Your task to perform on an android device: Go to battery settings Image 0: 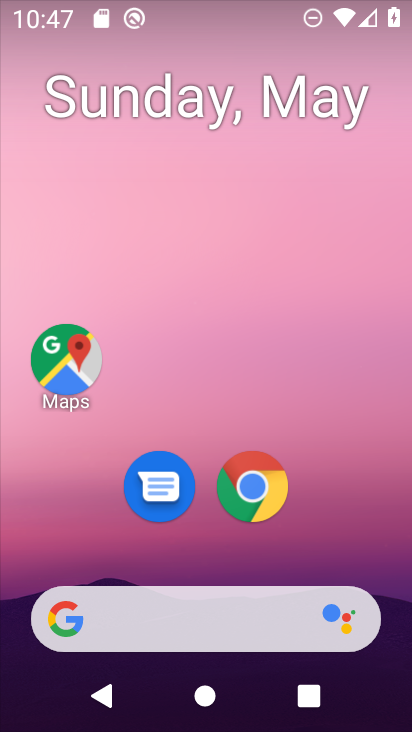
Step 0: drag from (388, 564) to (246, 0)
Your task to perform on an android device: Go to battery settings Image 1: 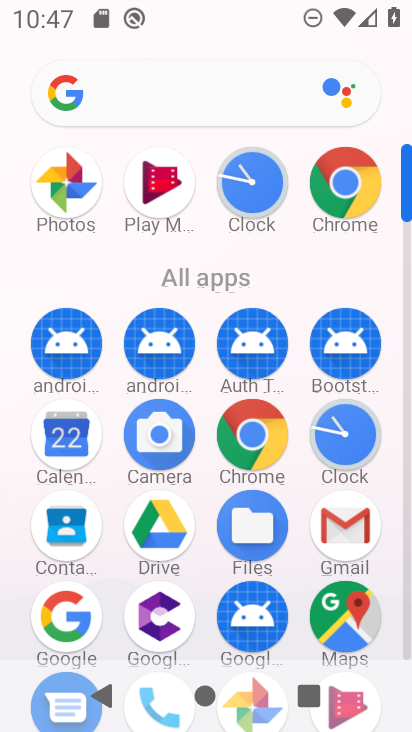
Step 1: click (409, 654)
Your task to perform on an android device: Go to battery settings Image 2: 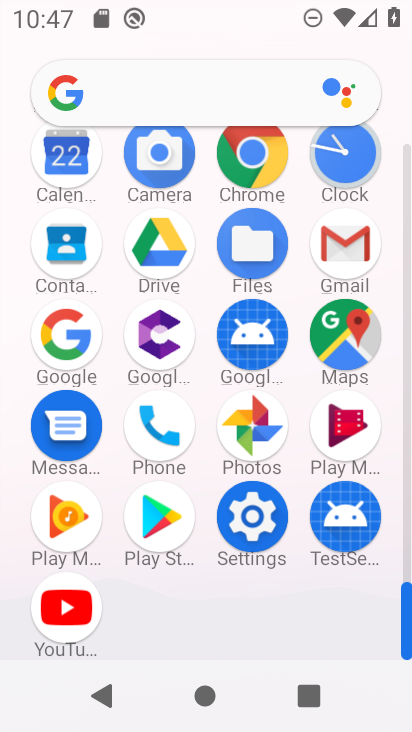
Step 2: click (268, 539)
Your task to perform on an android device: Go to battery settings Image 3: 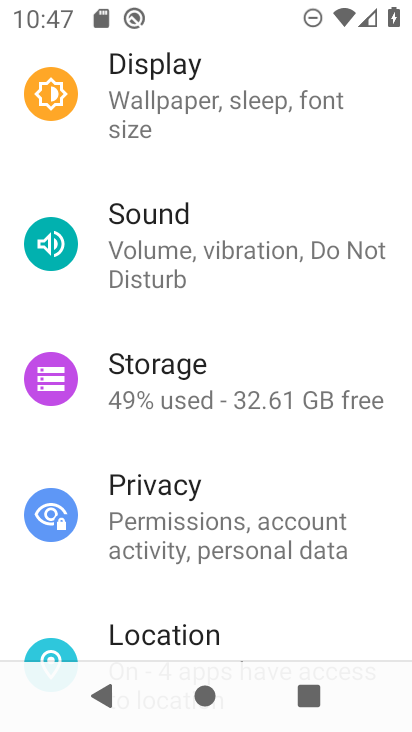
Step 3: drag from (257, 185) to (258, 614)
Your task to perform on an android device: Go to battery settings Image 4: 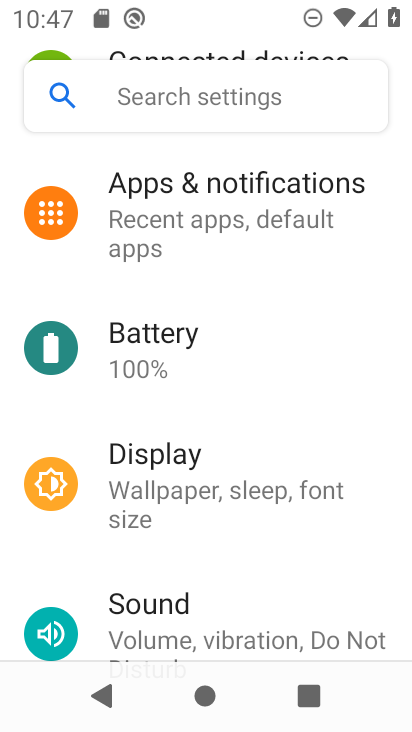
Step 4: click (218, 376)
Your task to perform on an android device: Go to battery settings Image 5: 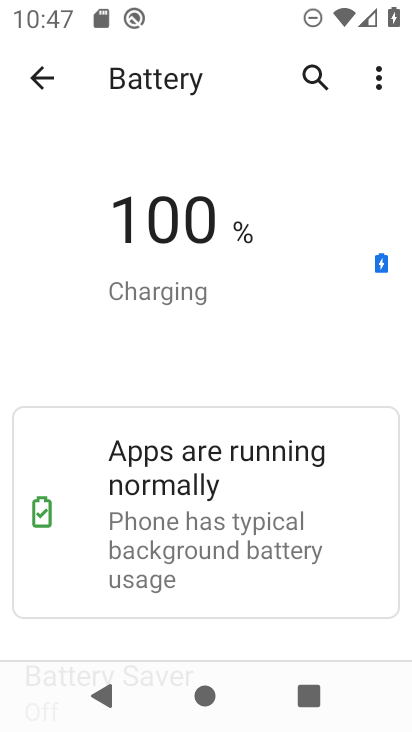
Step 5: task complete